Your task to perform on an android device: turn on location history Image 0: 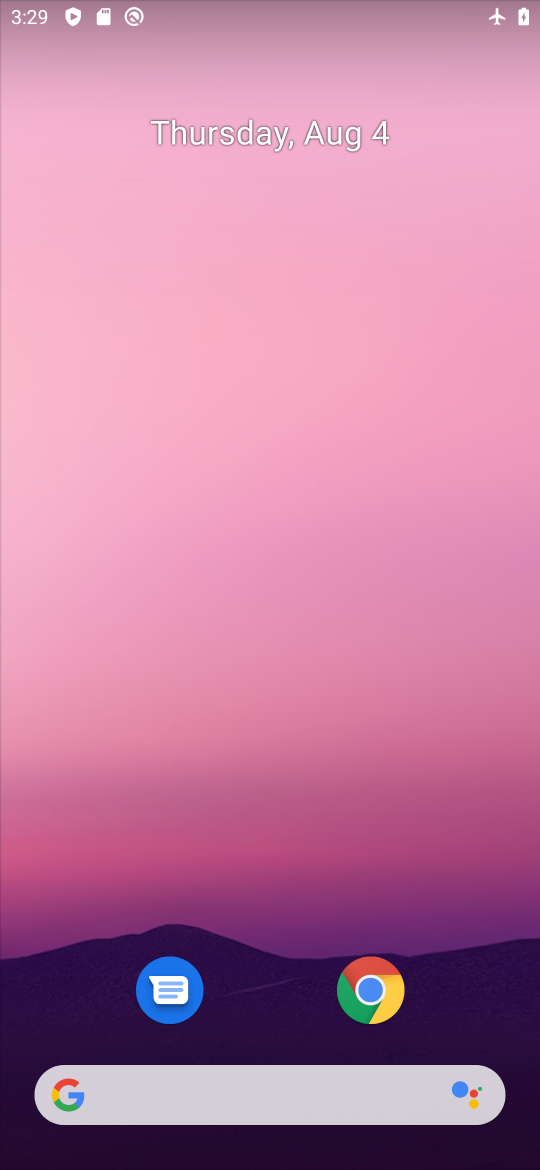
Step 0: drag from (325, 1028) to (367, 147)
Your task to perform on an android device: turn on location history Image 1: 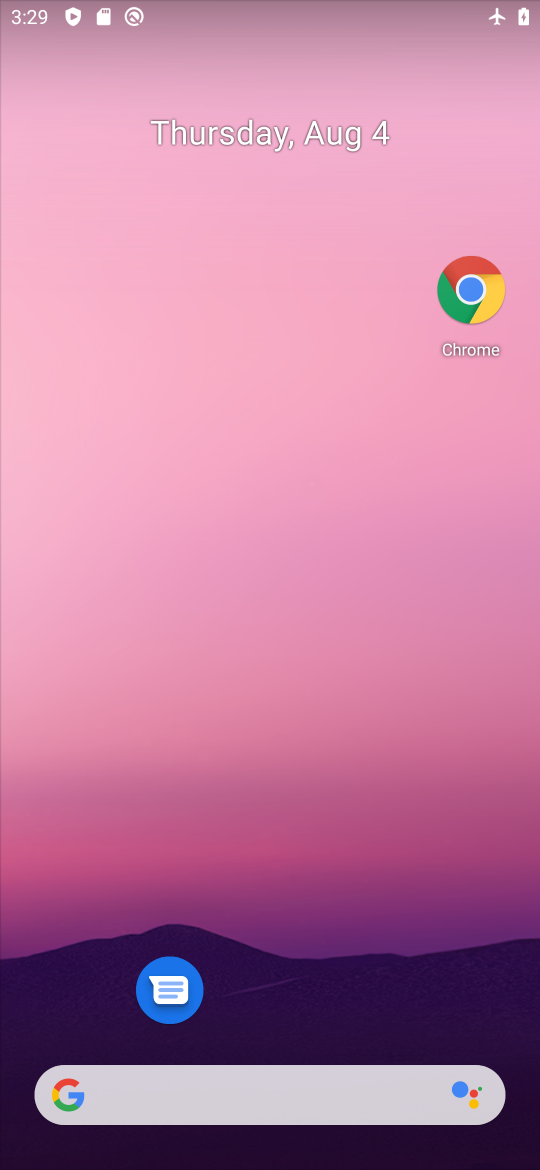
Step 1: click (328, 563)
Your task to perform on an android device: turn on location history Image 2: 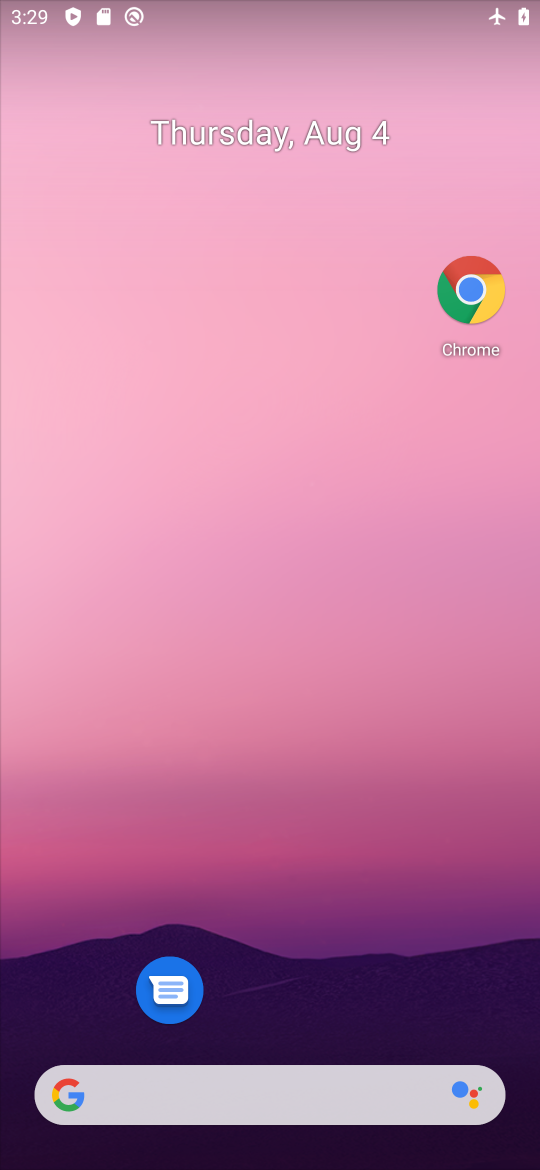
Step 2: drag from (321, 1043) to (250, 69)
Your task to perform on an android device: turn on location history Image 3: 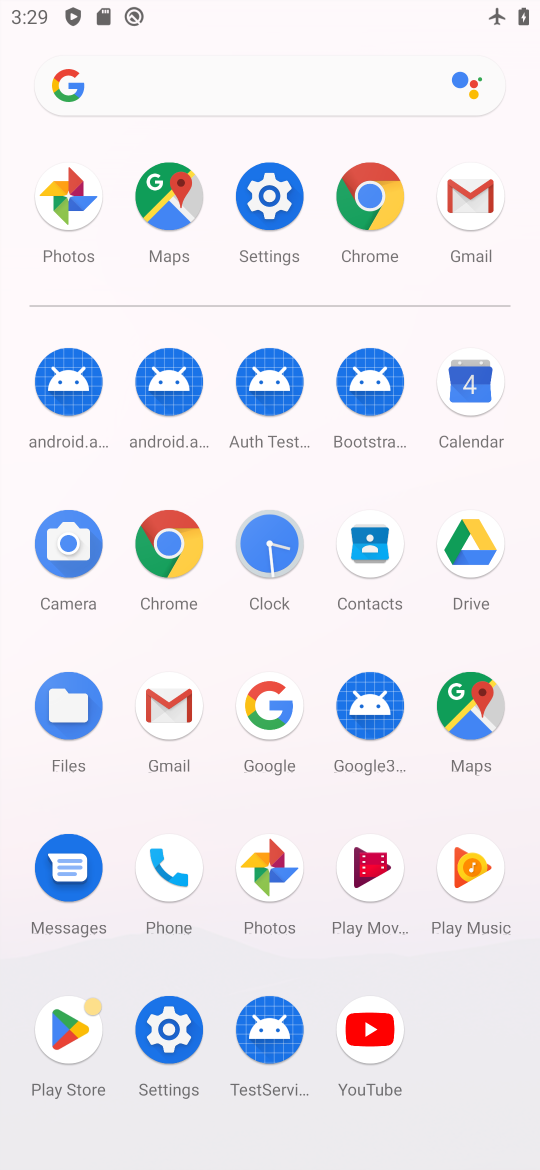
Step 3: click (274, 211)
Your task to perform on an android device: turn on location history Image 4: 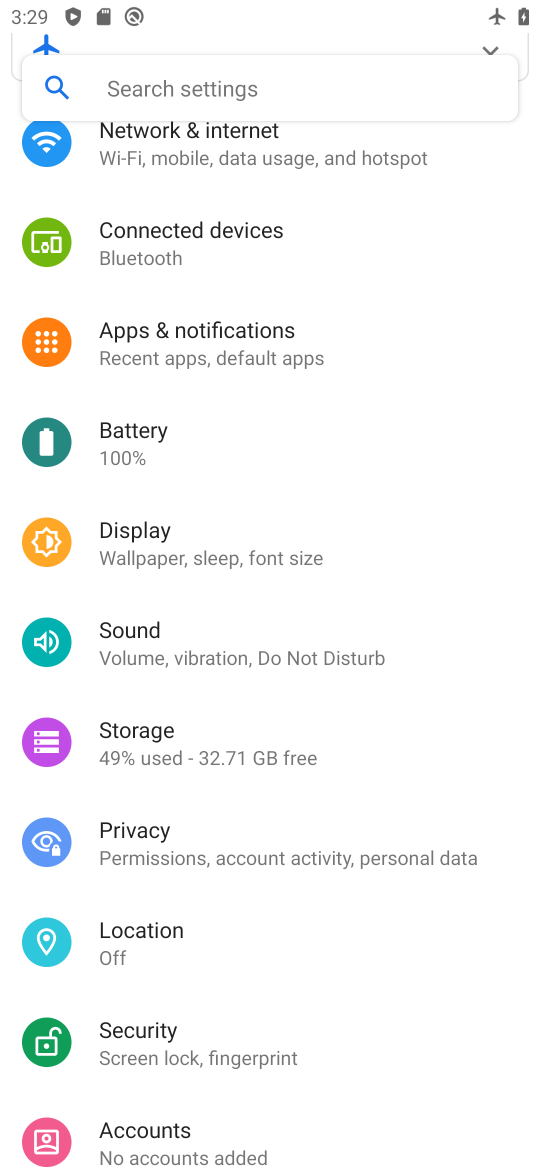
Step 4: click (275, 936)
Your task to perform on an android device: turn on location history Image 5: 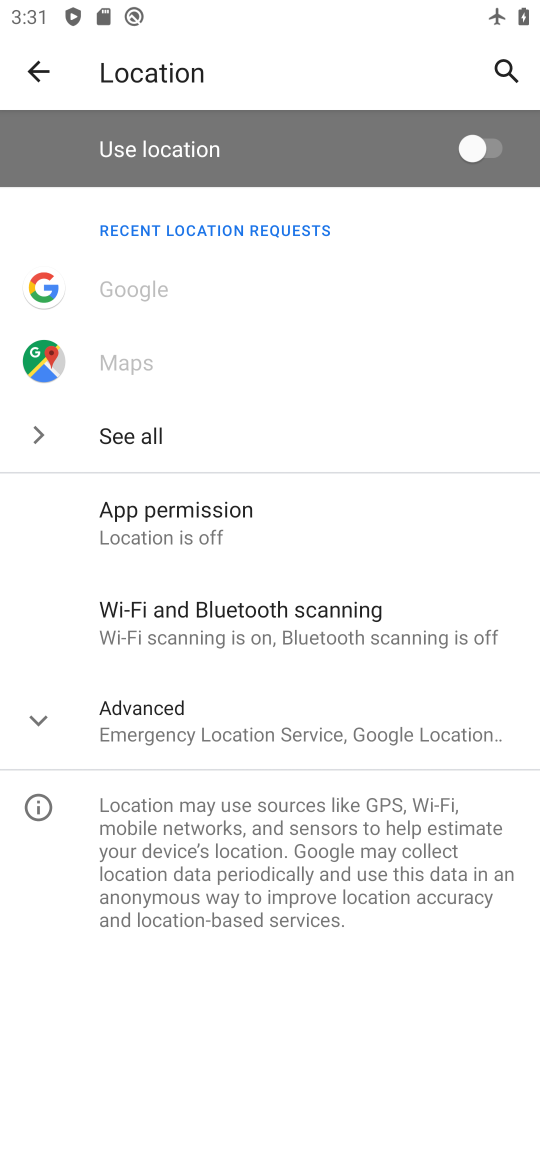
Step 5: press home button
Your task to perform on an android device: turn on location history Image 6: 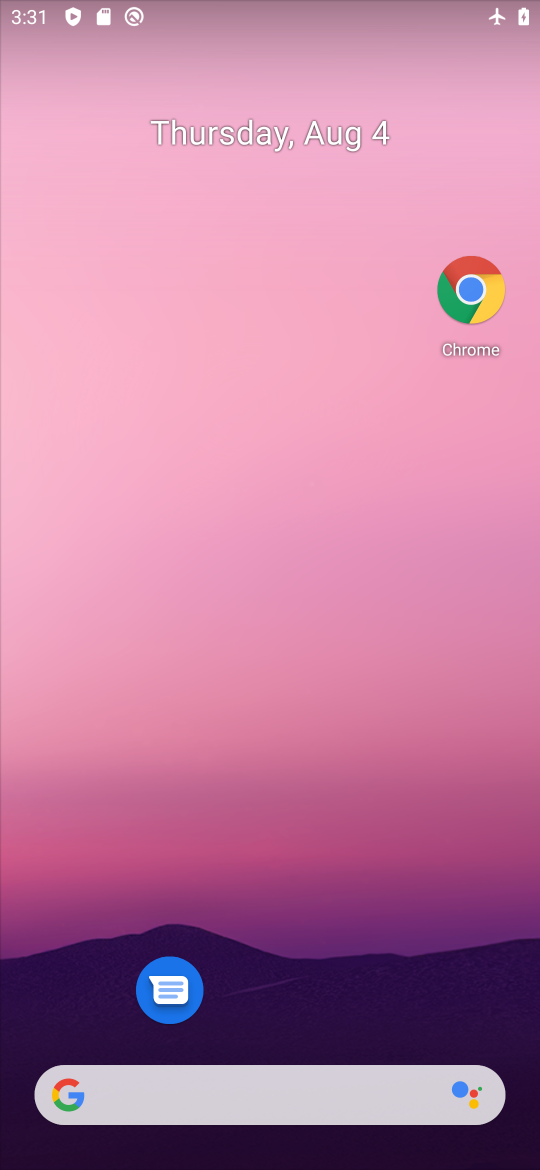
Step 6: drag from (348, 1016) to (355, 23)
Your task to perform on an android device: turn on location history Image 7: 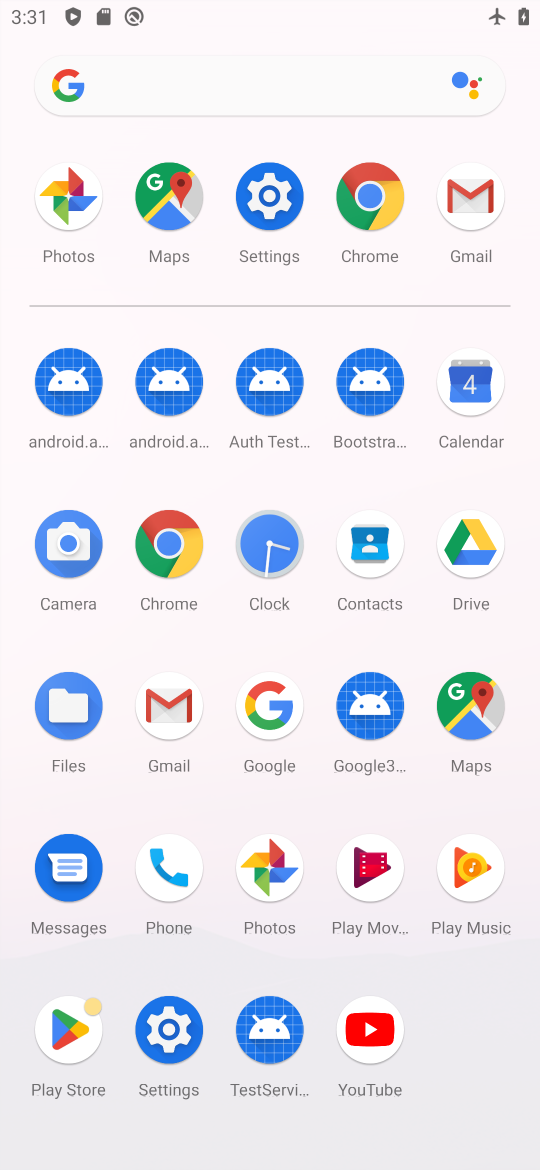
Step 7: click (272, 255)
Your task to perform on an android device: turn on location history Image 8: 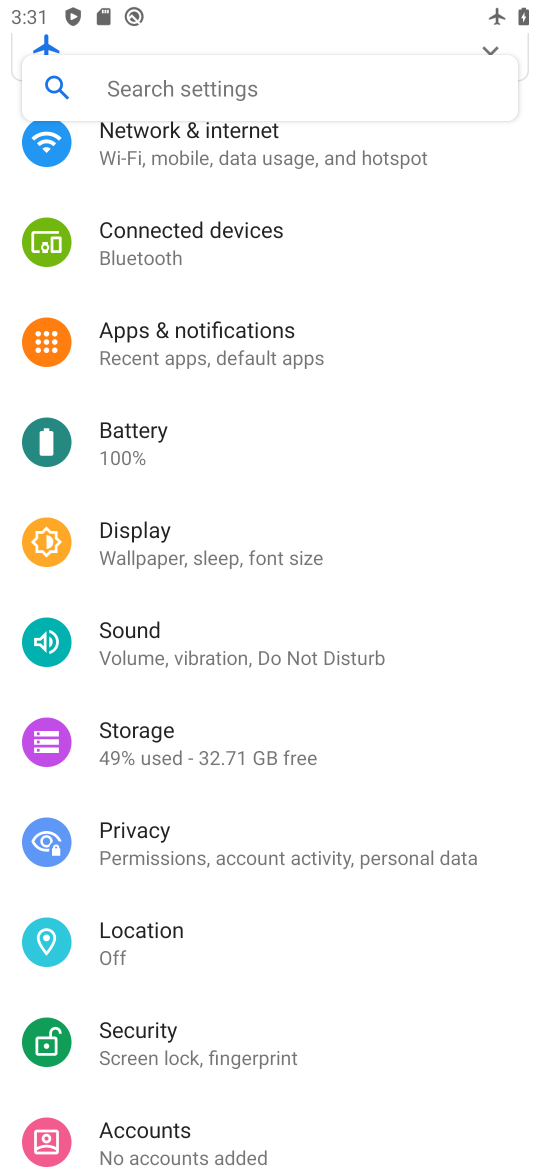
Step 8: click (248, 941)
Your task to perform on an android device: turn on location history Image 9: 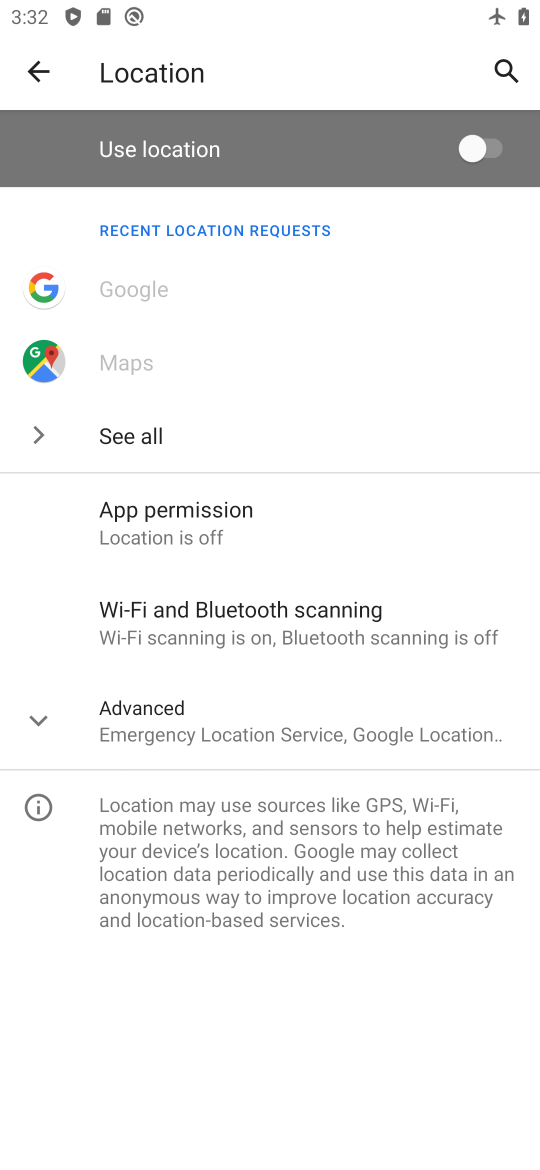
Step 9: task complete